Your task to perform on an android device: turn off picture-in-picture Image 0: 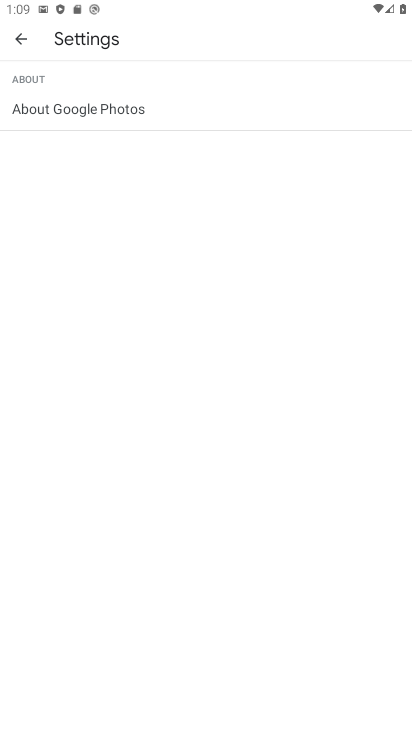
Step 0: press home button
Your task to perform on an android device: turn off picture-in-picture Image 1: 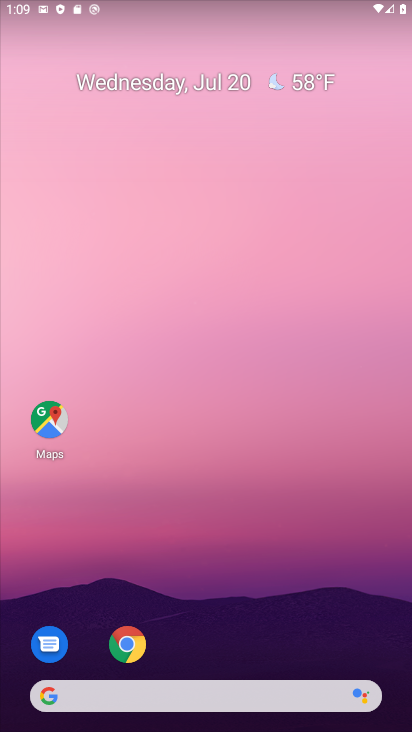
Step 1: click (128, 642)
Your task to perform on an android device: turn off picture-in-picture Image 2: 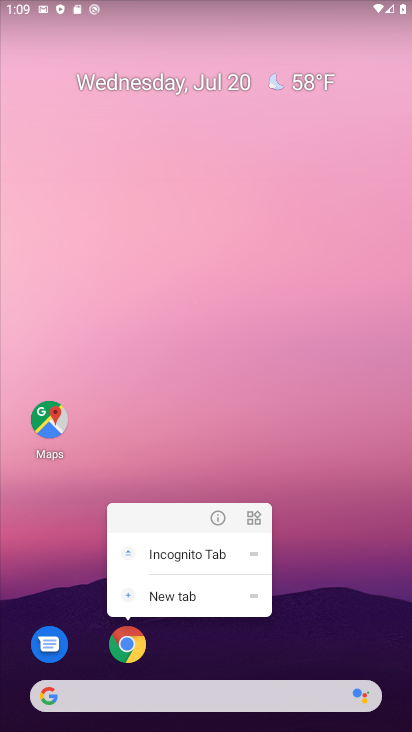
Step 2: click (217, 519)
Your task to perform on an android device: turn off picture-in-picture Image 3: 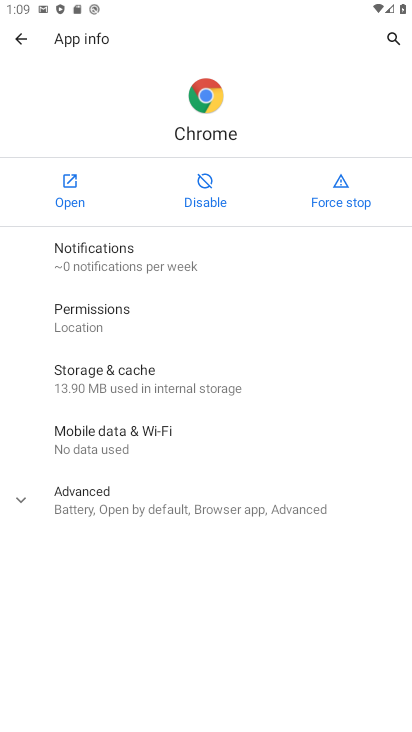
Step 3: click (107, 500)
Your task to perform on an android device: turn off picture-in-picture Image 4: 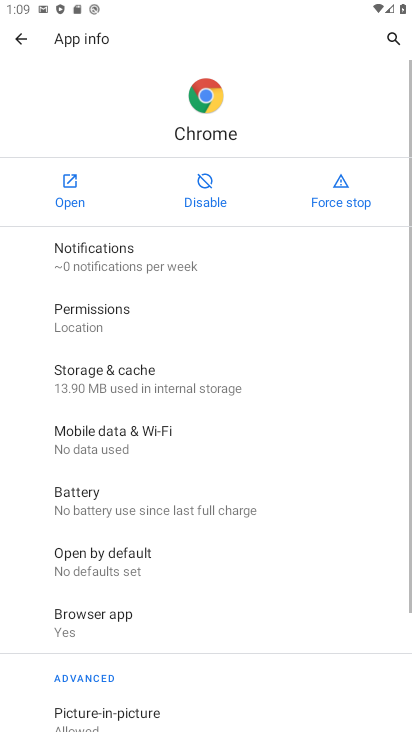
Step 4: drag from (125, 701) to (122, 512)
Your task to perform on an android device: turn off picture-in-picture Image 5: 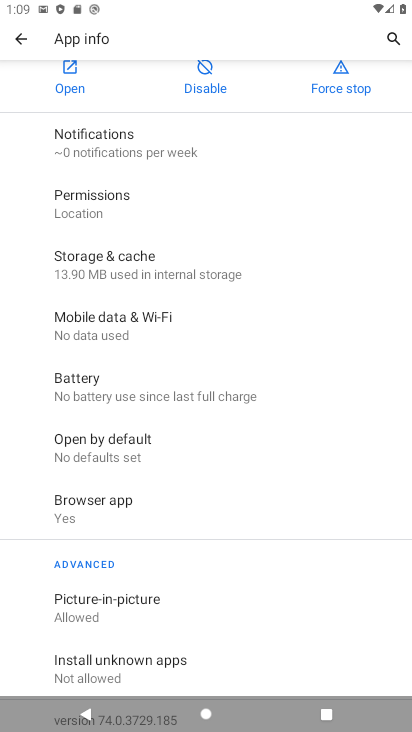
Step 5: click (114, 605)
Your task to perform on an android device: turn off picture-in-picture Image 6: 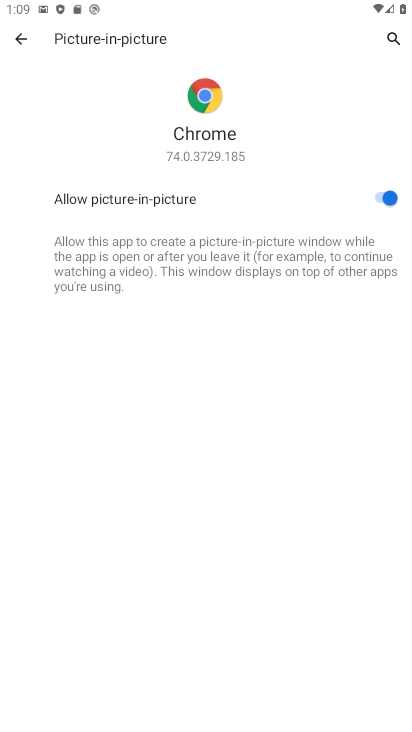
Step 6: click (386, 202)
Your task to perform on an android device: turn off picture-in-picture Image 7: 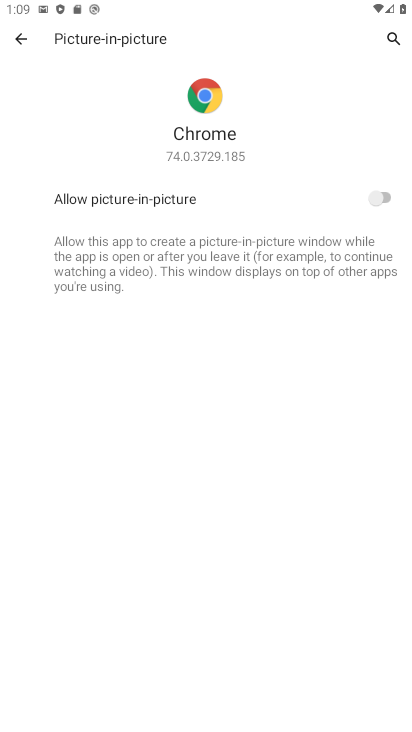
Step 7: task complete